Your task to perform on an android device: toggle data saver in the chrome app Image 0: 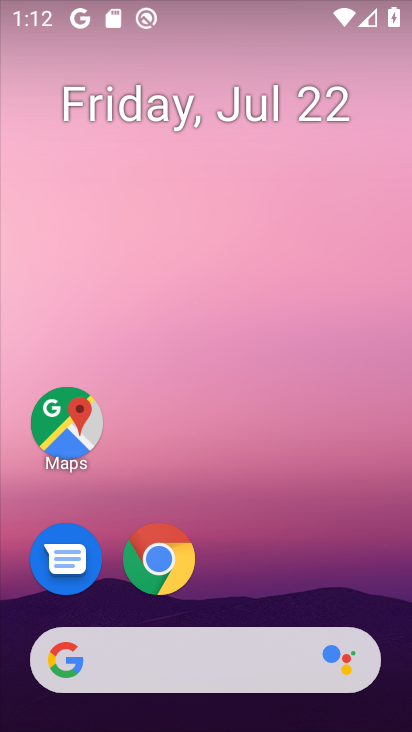
Step 0: click (170, 573)
Your task to perform on an android device: toggle data saver in the chrome app Image 1: 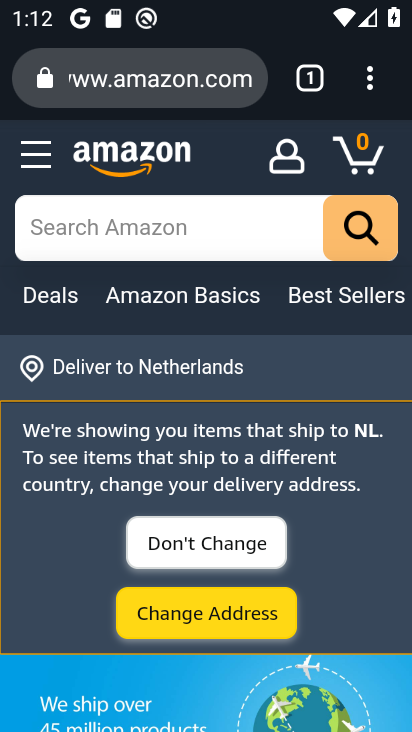
Step 1: drag from (373, 80) to (120, 603)
Your task to perform on an android device: toggle data saver in the chrome app Image 2: 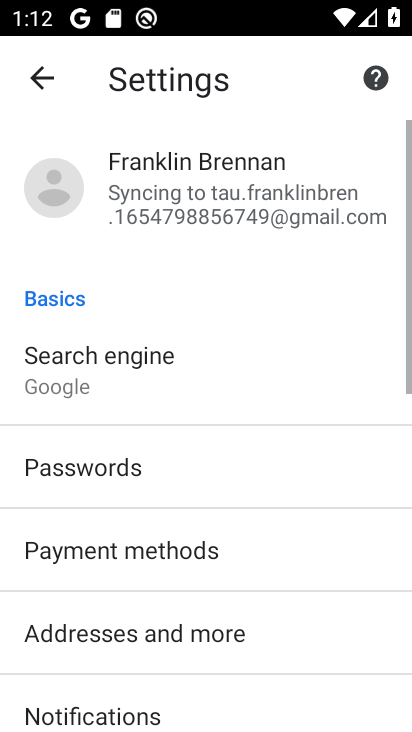
Step 2: drag from (158, 634) to (227, 224)
Your task to perform on an android device: toggle data saver in the chrome app Image 3: 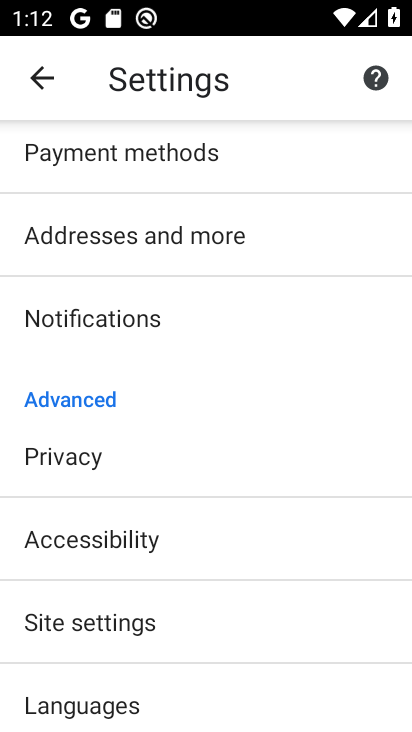
Step 3: drag from (128, 672) to (170, 398)
Your task to perform on an android device: toggle data saver in the chrome app Image 4: 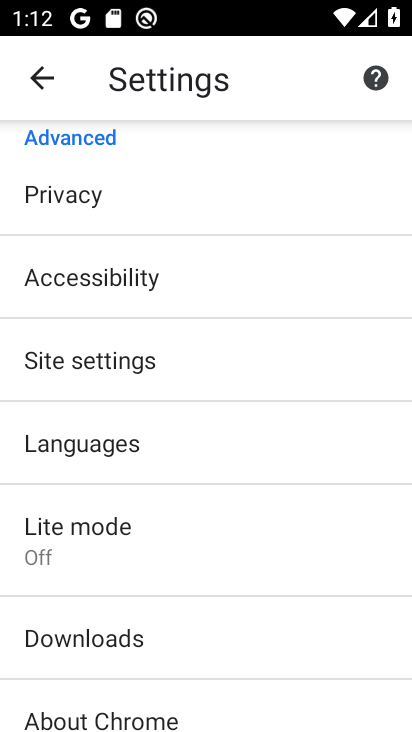
Step 4: click (87, 532)
Your task to perform on an android device: toggle data saver in the chrome app Image 5: 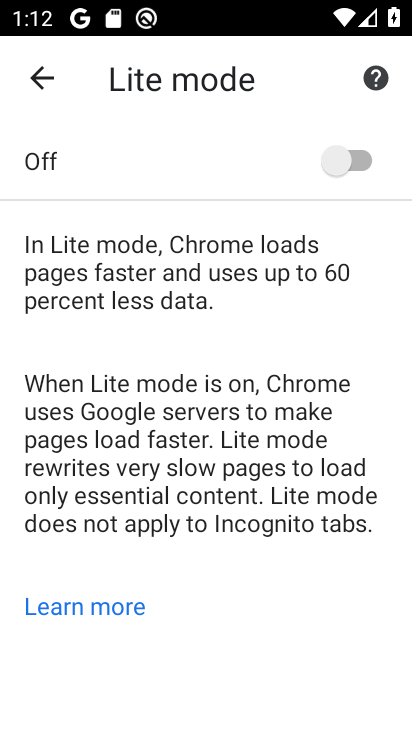
Step 5: click (343, 153)
Your task to perform on an android device: toggle data saver in the chrome app Image 6: 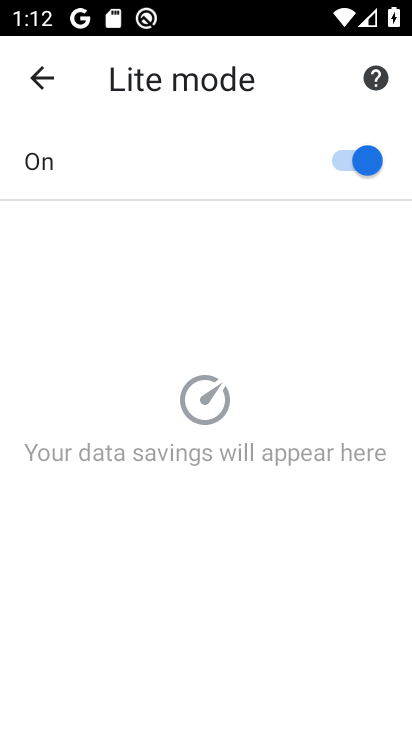
Step 6: task complete